Your task to perform on an android device: Is it going to rain this weekend? Image 0: 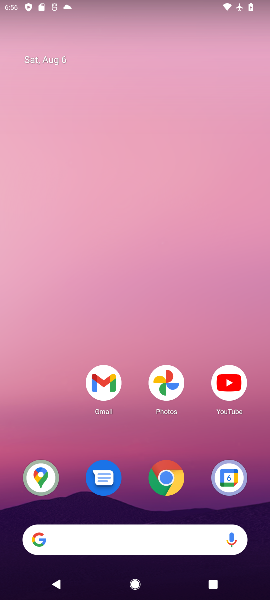
Step 0: press home button
Your task to perform on an android device: Is it going to rain this weekend? Image 1: 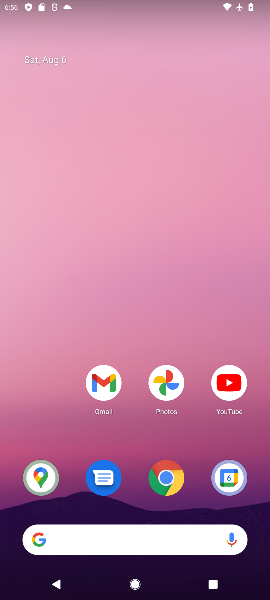
Step 1: click (39, 539)
Your task to perform on an android device: Is it going to rain this weekend? Image 2: 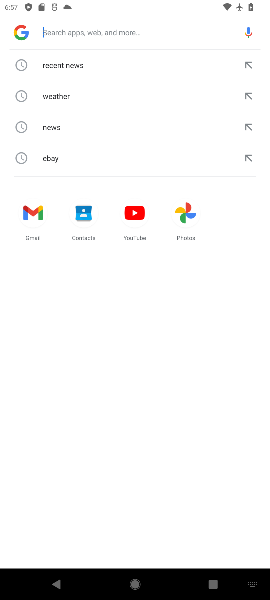
Step 2: type "Is it going to rain this weekend?"
Your task to perform on an android device: Is it going to rain this weekend? Image 3: 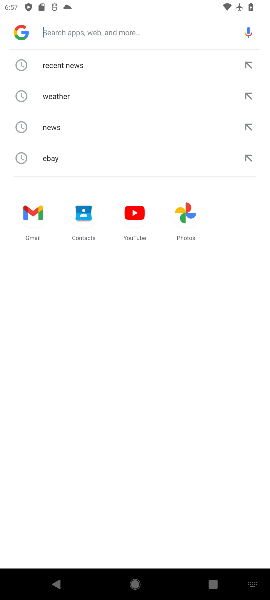
Step 3: click (103, 34)
Your task to perform on an android device: Is it going to rain this weekend? Image 4: 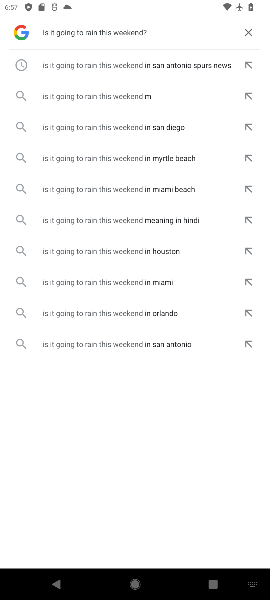
Step 4: press enter
Your task to perform on an android device: Is it going to rain this weekend? Image 5: 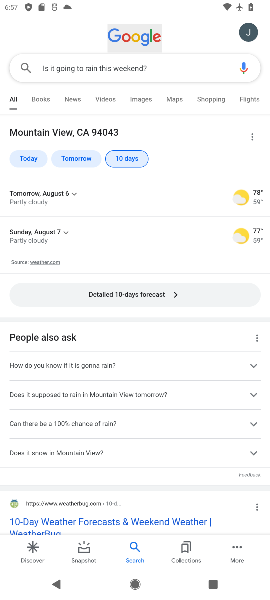
Step 5: task complete